Your task to perform on an android device: Open Chrome and go to the settings page Image 0: 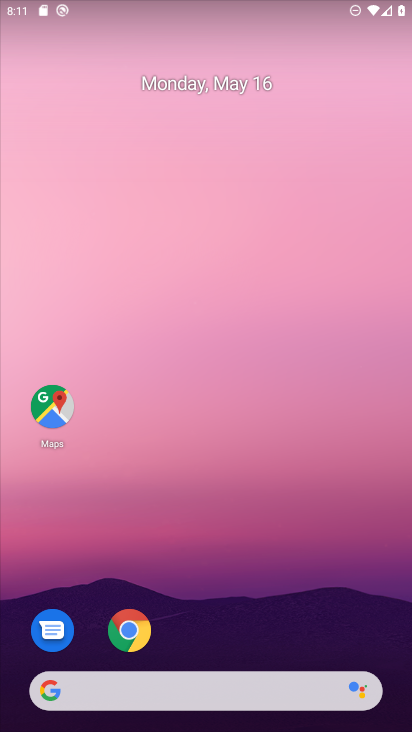
Step 0: click (120, 625)
Your task to perform on an android device: Open Chrome and go to the settings page Image 1: 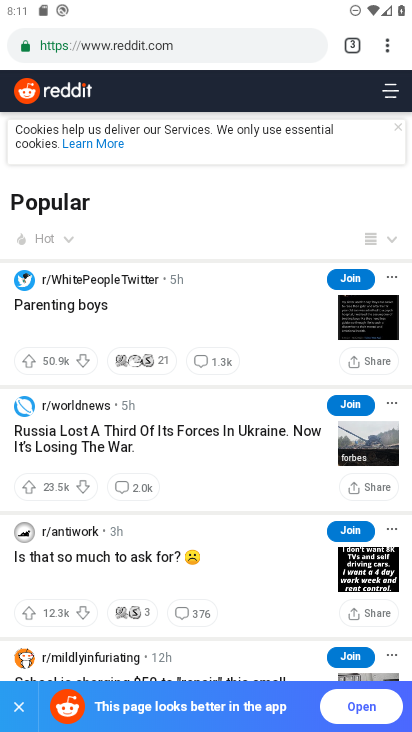
Step 1: click (394, 39)
Your task to perform on an android device: Open Chrome and go to the settings page Image 2: 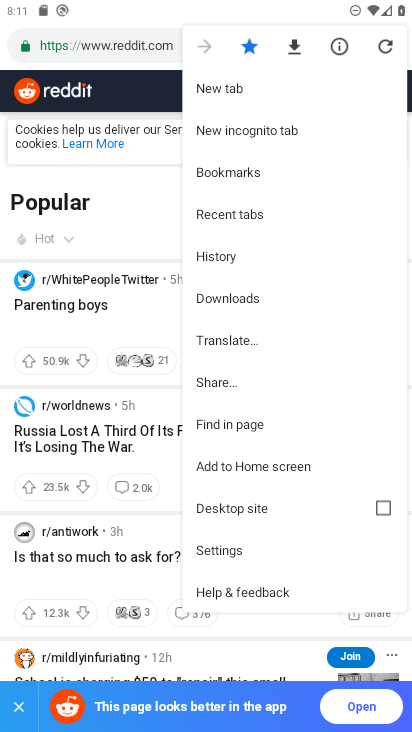
Step 2: click (228, 544)
Your task to perform on an android device: Open Chrome and go to the settings page Image 3: 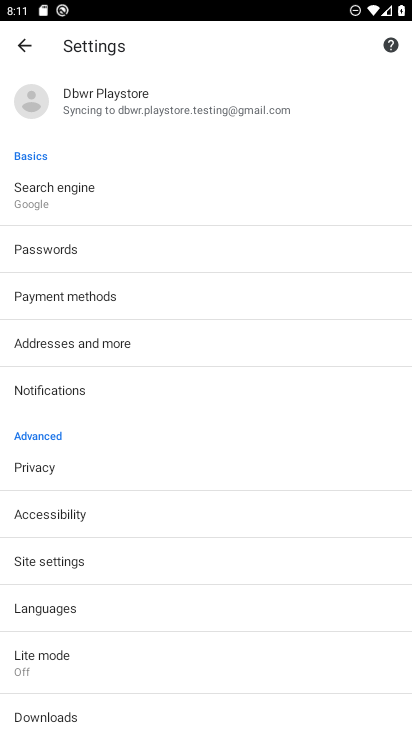
Step 3: task complete